Your task to perform on an android device: Search for Italian restaurants on Maps Image 0: 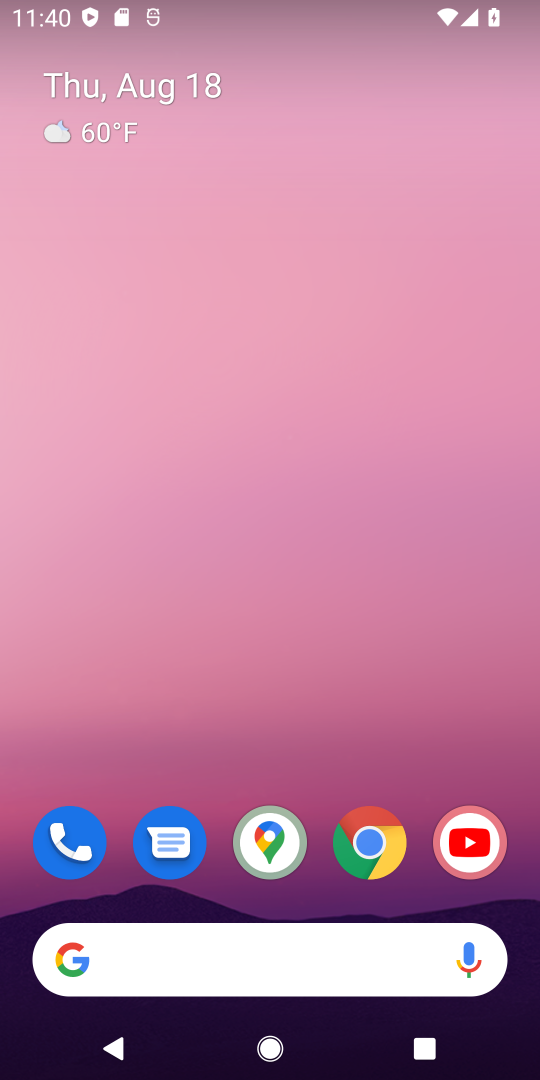
Step 0: click (261, 829)
Your task to perform on an android device: Search for Italian restaurants on Maps Image 1: 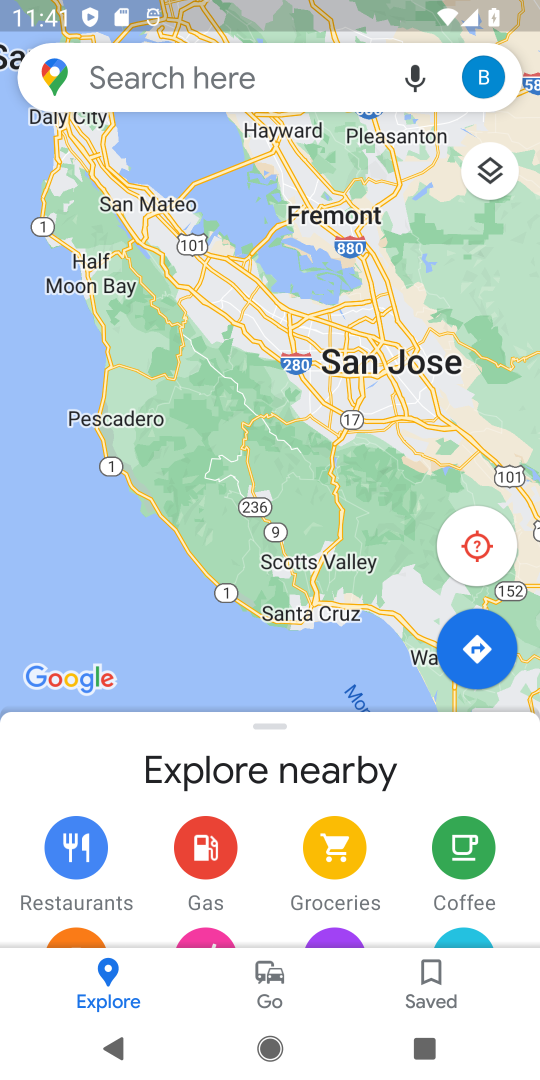
Step 1: click (165, 69)
Your task to perform on an android device: Search for Italian restaurants on Maps Image 2: 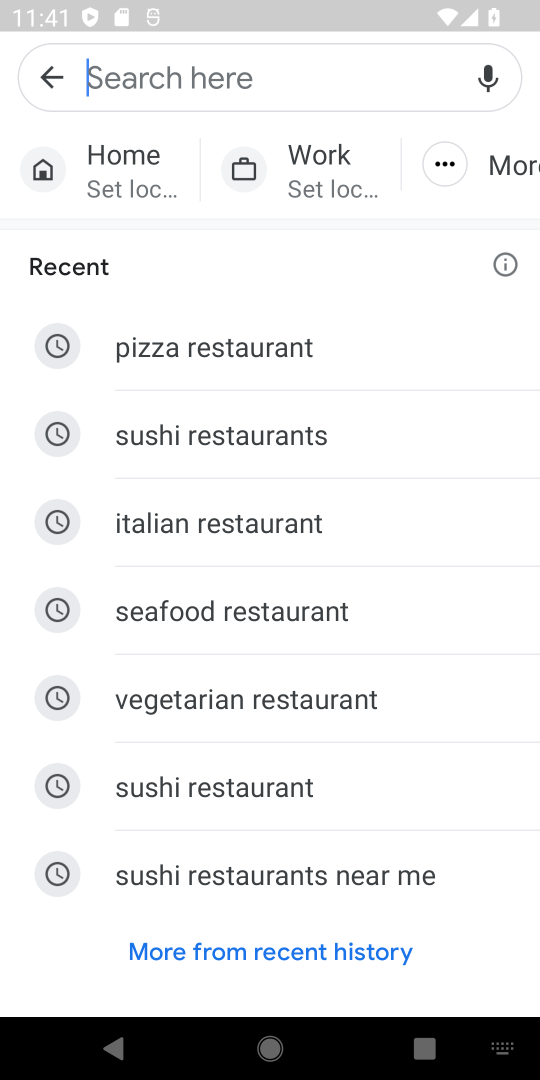
Step 2: click (216, 532)
Your task to perform on an android device: Search for Italian restaurants on Maps Image 3: 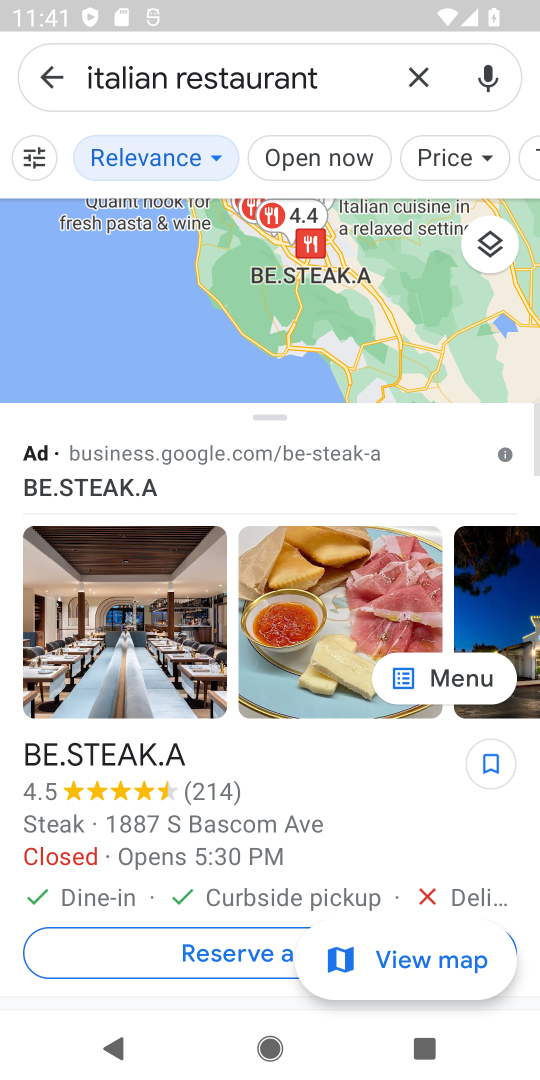
Step 3: task complete